Your task to perform on an android device: see tabs open on other devices in the chrome app Image 0: 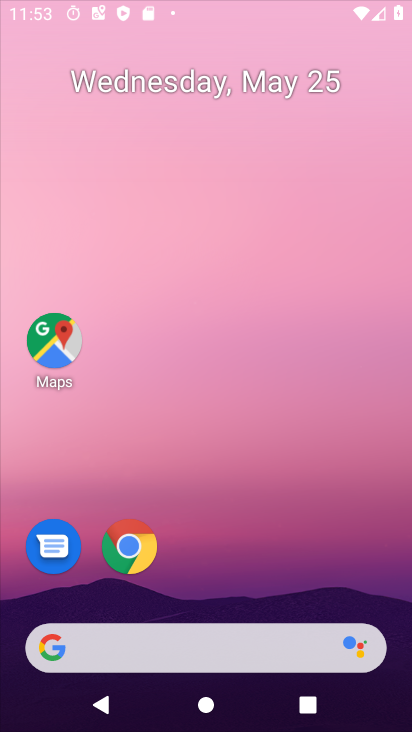
Step 0: drag from (282, 519) to (341, 47)
Your task to perform on an android device: see tabs open on other devices in the chrome app Image 1: 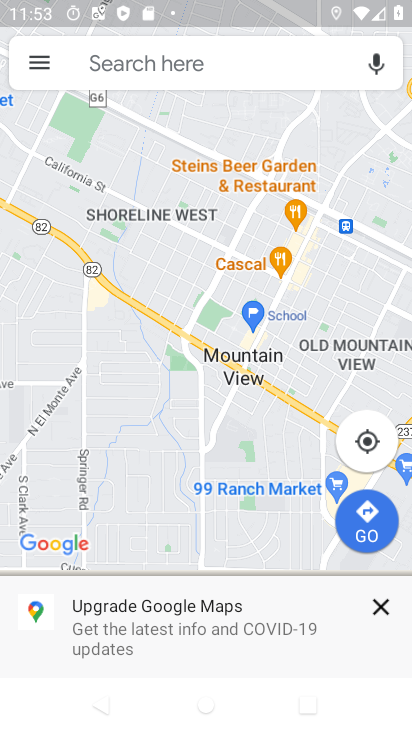
Step 1: press home button
Your task to perform on an android device: see tabs open on other devices in the chrome app Image 2: 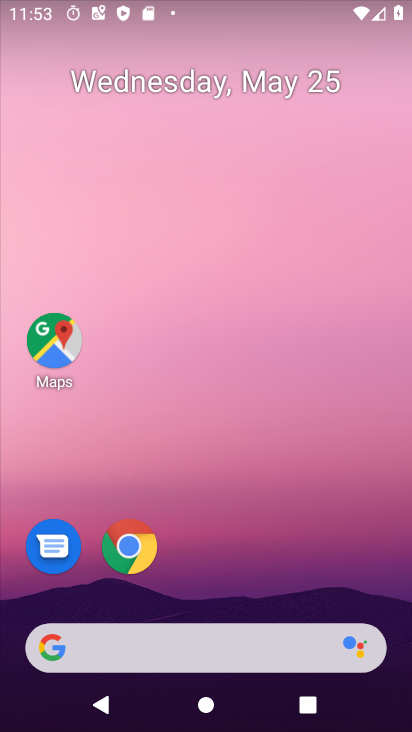
Step 2: click (129, 542)
Your task to perform on an android device: see tabs open on other devices in the chrome app Image 3: 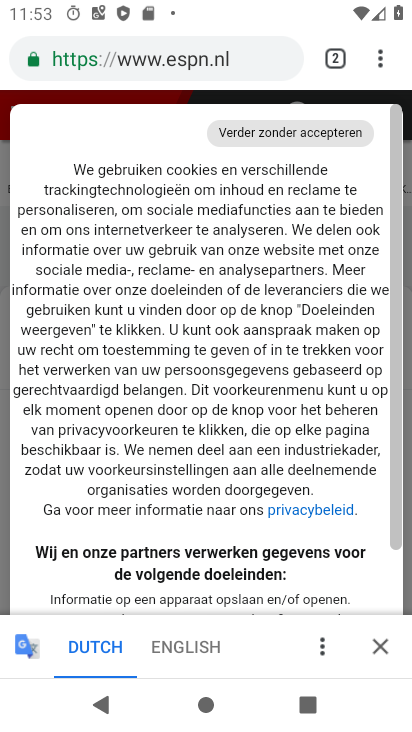
Step 3: click (391, 52)
Your task to perform on an android device: see tabs open on other devices in the chrome app Image 4: 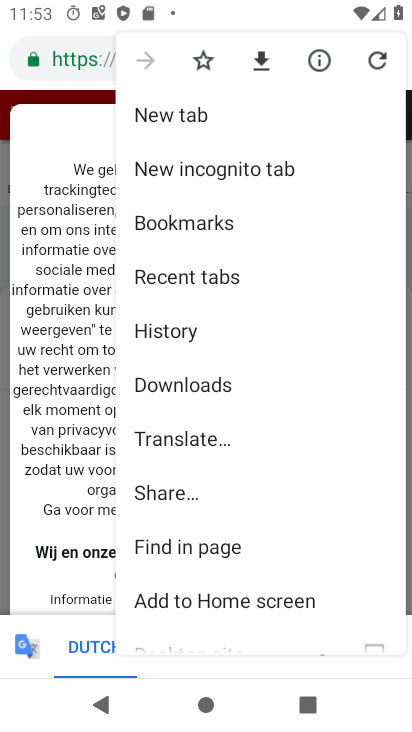
Step 4: click (192, 266)
Your task to perform on an android device: see tabs open on other devices in the chrome app Image 5: 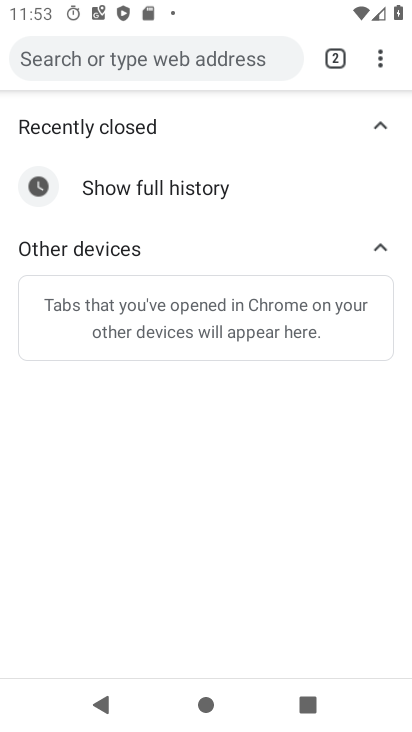
Step 5: task complete